Your task to perform on an android device: delete the emails in spam in the gmail app Image 0: 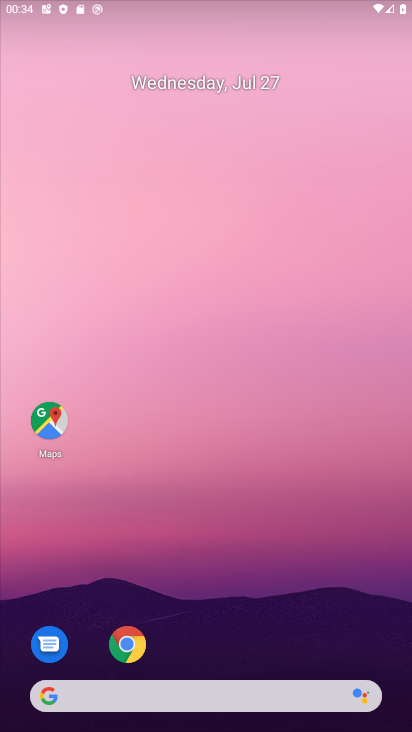
Step 0: drag from (312, 605) to (200, 154)
Your task to perform on an android device: delete the emails in spam in the gmail app Image 1: 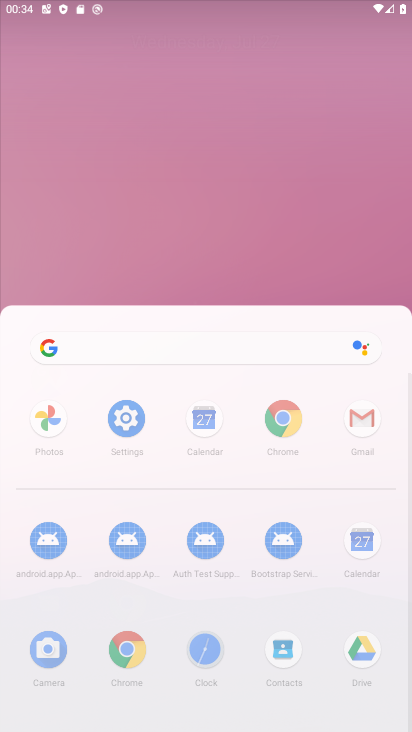
Step 1: drag from (165, 461) to (171, 201)
Your task to perform on an android device: delete the emails in spam in the gmail app Image 2: 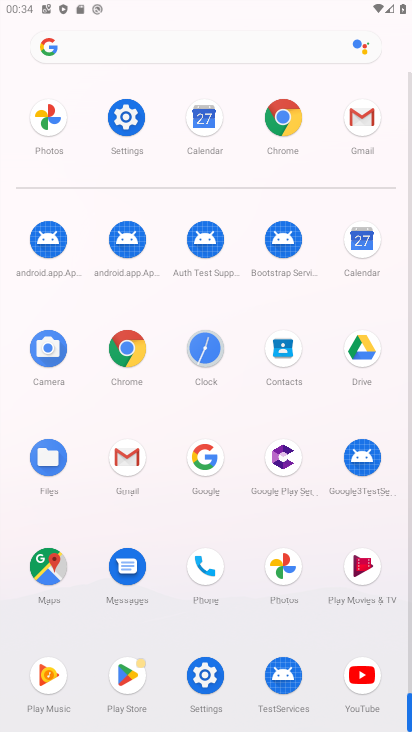
Step 2: drag from (227, 515) to (197, 225)
Your task to perform on an android device: delete the emails in spam in the gmail app Image 3: 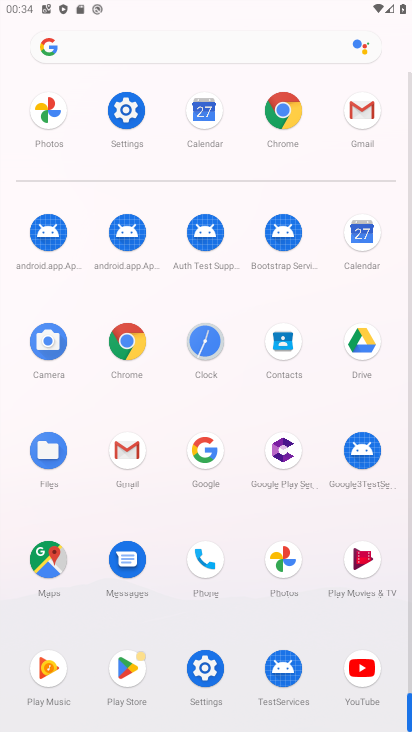
Step 3: click (137, 437)
Your task to perform on an android device: delete the emails in spam in the gmail app Image 4: 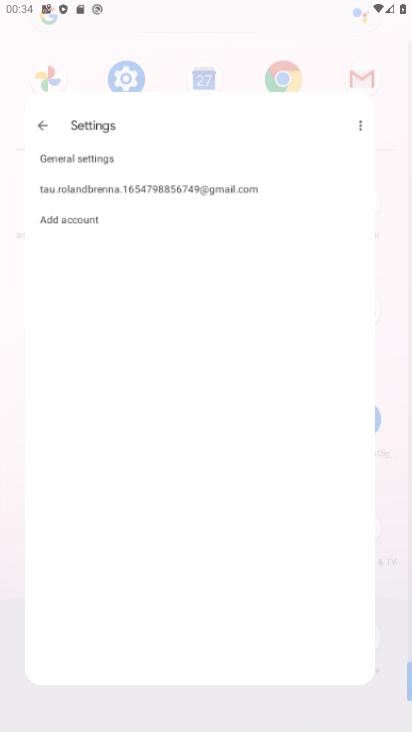
Step 4: click (134, 440)
Your task to perform on an android device: delete the emails in spam in the gmail app Image 5: 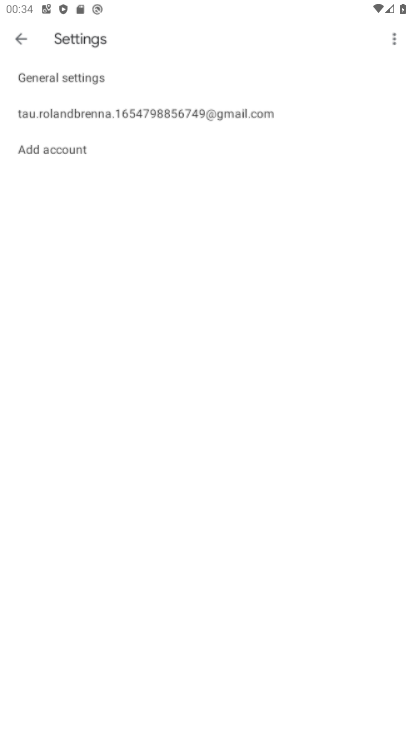
Step 5: click (134, 440)
Your task to perform on an android device: delete the emails in spam in the gmail app Image 6: 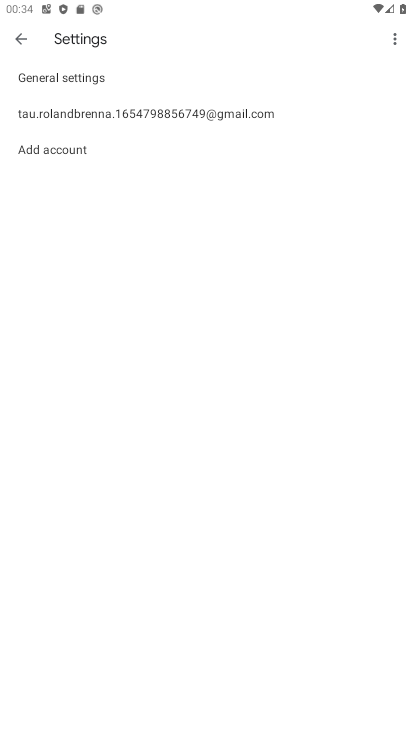
Step 6: click (91, 108)
Your task to perform on an android device: delete the emails in spam in the gmail app Image 7: 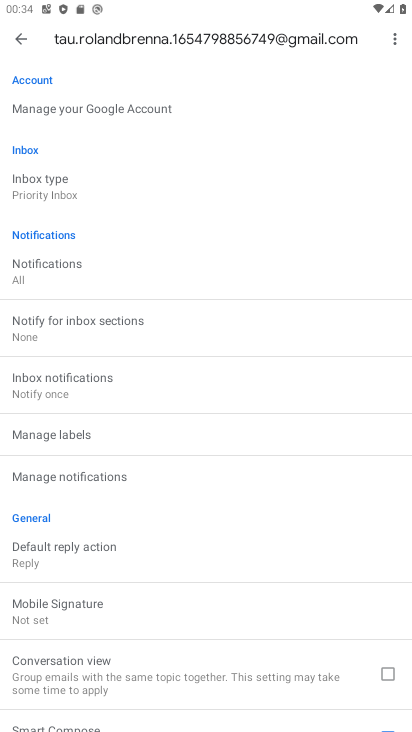
Step 7: click (14, 40)
Your task to perform on an android device: delete the emails in spam in the gmail app Image 8: 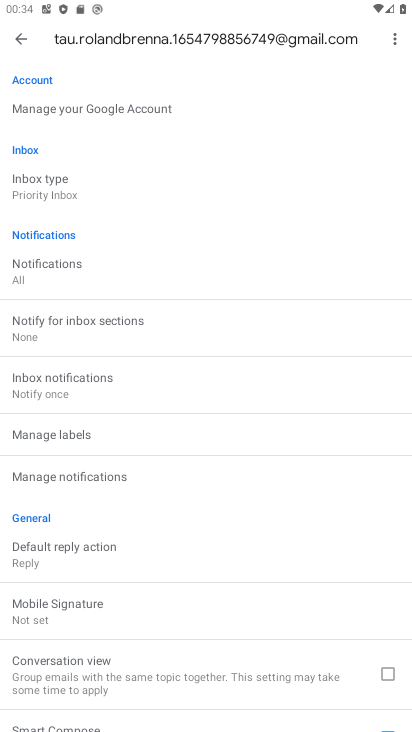
Step 8: click (14, 40)
Your task to perform on an android device: delete the emails in spam in the gmail app Image 9: 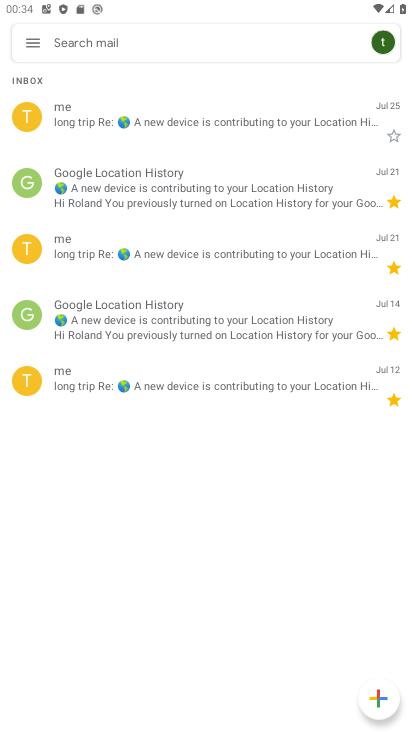
Step 9: click (40, 20)
Your task to perform on an android device: delete the emails in spam in the gmail app Image 10: 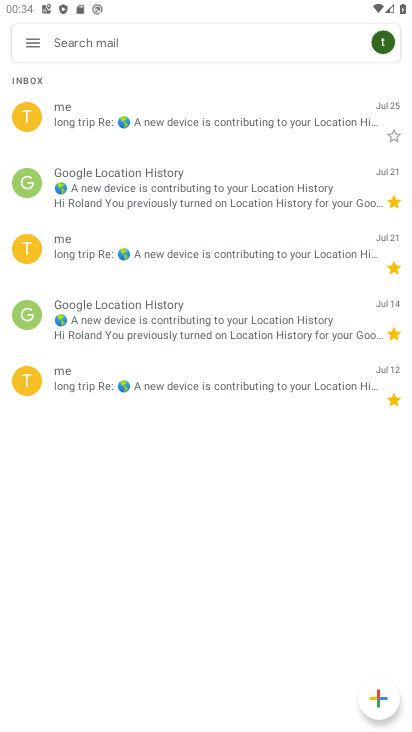
Step 10: click (32, 37)
Your task to perform on an android device: delete the emails in spam in the gmail app Image 11: 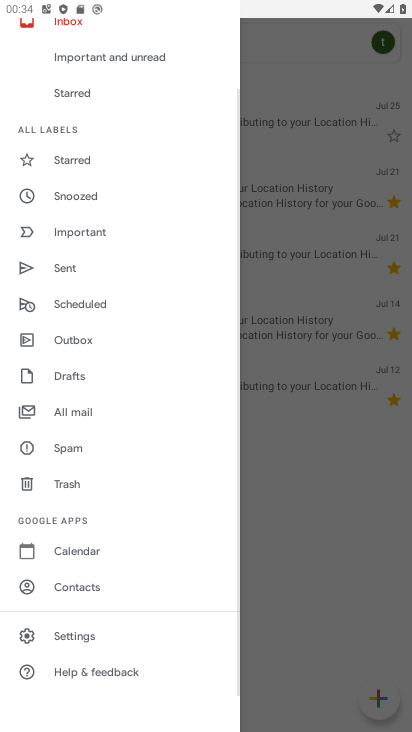
Step 11: click (62, 443)
Your task to perform on an android device: delete the emails in spam in the gmail app Image 12: 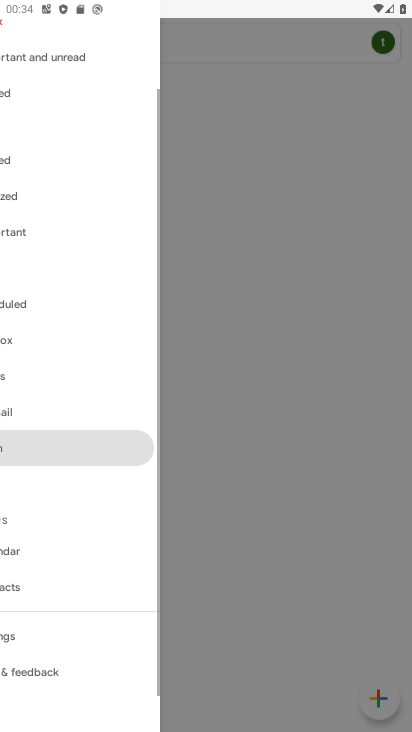
Step 12: click (68, 441)
Your task to perform on an android device: delete the emails in spam in the gmail app Image 13: 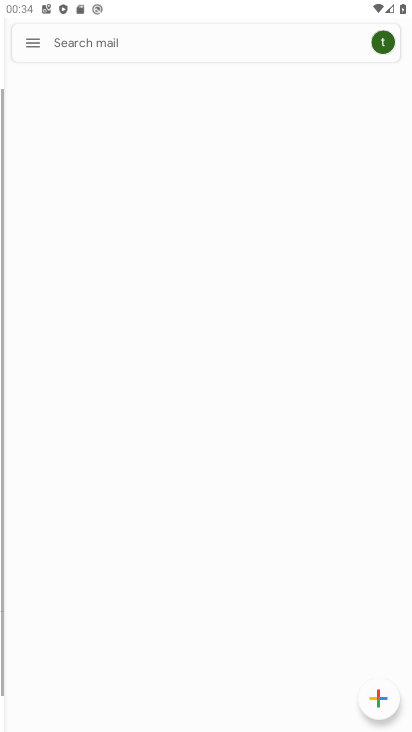
Step 13: click (69, 443)
Your task to perform on an android device: delete the emails in spam in the gmail app Image 14: 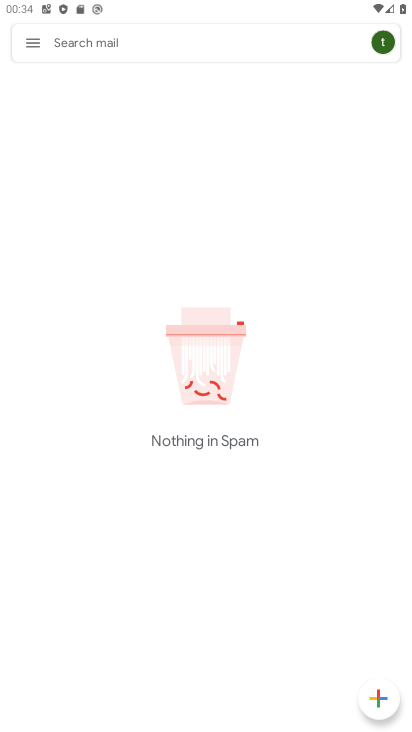
Step 14: task complete